Your task to perform on an android device: Open calendar and show me the third week of next month Image 0: 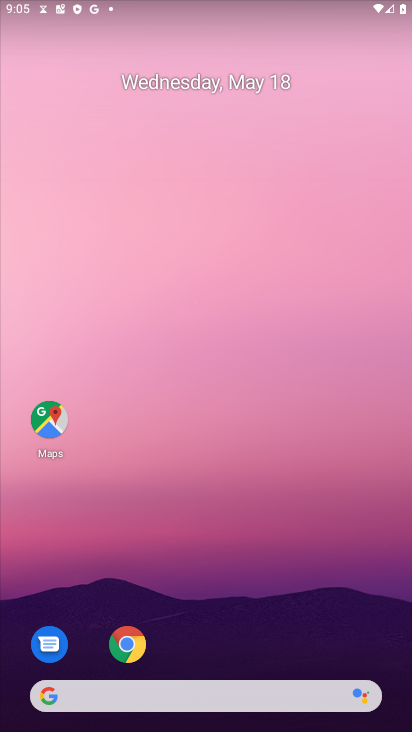
Step 0: drag from (251, 602) to (182, 165)
Your task to perform on an android device: Open calendar and show me the third week of next month Image 1: 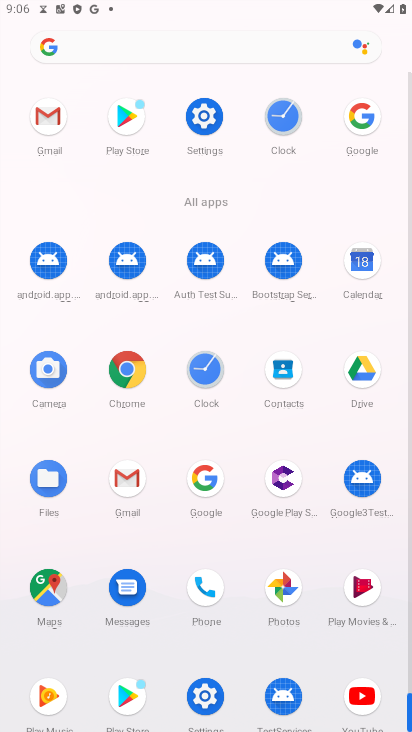
Step 1: click (362, 262)
Your task to perform on an android device: Open calendar and show me the third week of next month Image 2: 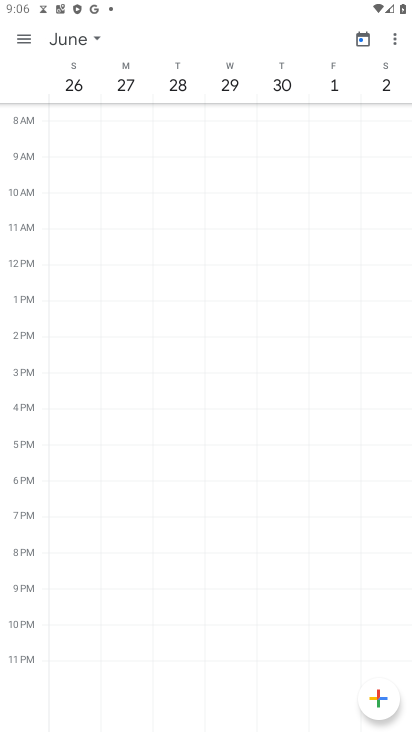
Step 2: click (365, 41)
Your task to perform on an android device: Open calendar and show me the third week of next month Image 3: 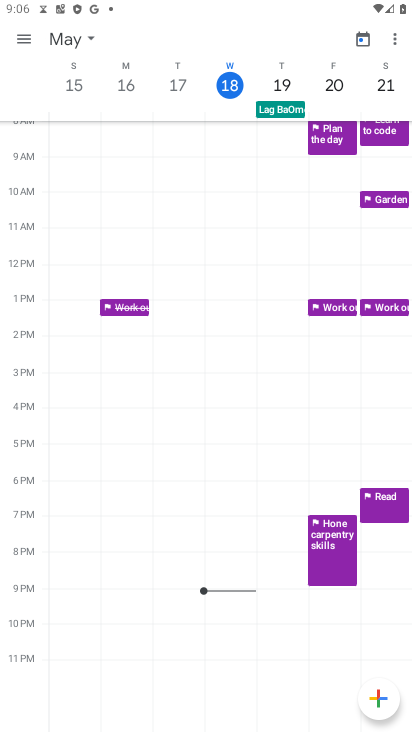
Step 3: click (85, 38)
Your task to perform on an android device: Open calendar and show me the third week of next month Image 4: 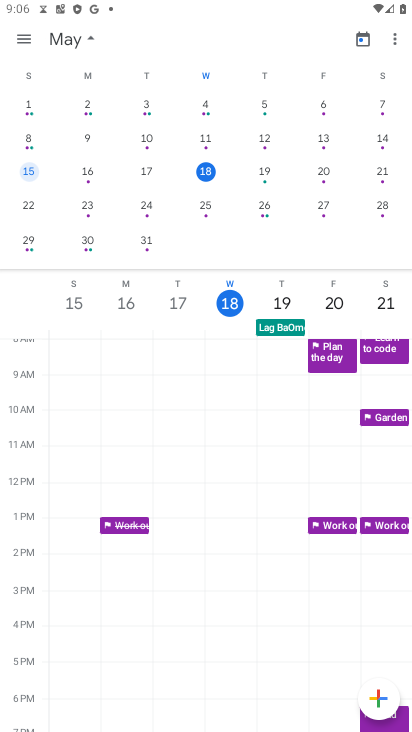
Step 4: drag from (354, 178) to (23, 176)
Your task to perform on an android device: Open calendar and show me the third week of next month Image 5: 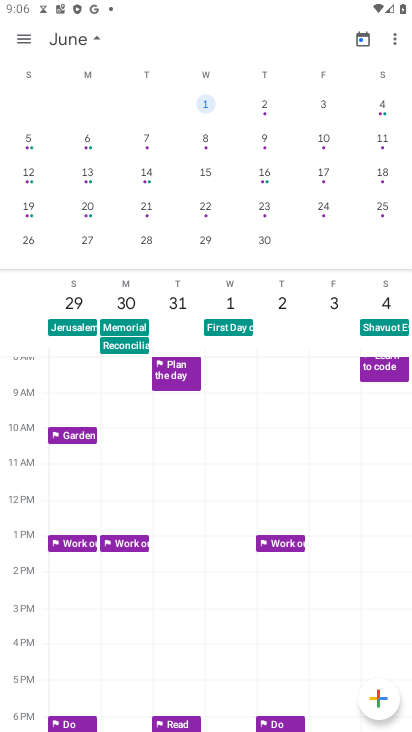
Step 5: click (87, 207)
Your task to perform on an android device: Open calendar and show me the third week of next month Image 6: 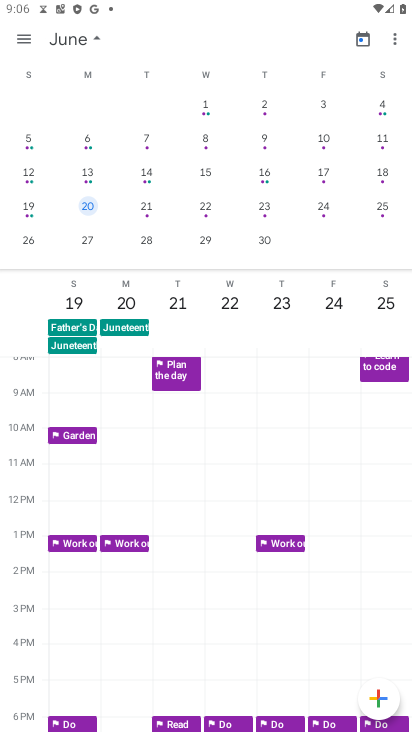
Step 6: click (29, 41)
Your task to perform on an android device: Open calendar and show me the third week of next month Image 7: 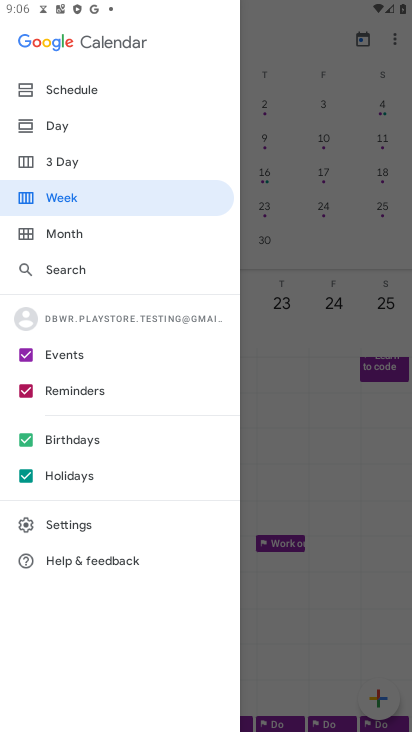
Step 7: click (68, 199)
Your task to perform on an android device: Open calendar and show me the third week of next month Image 8: 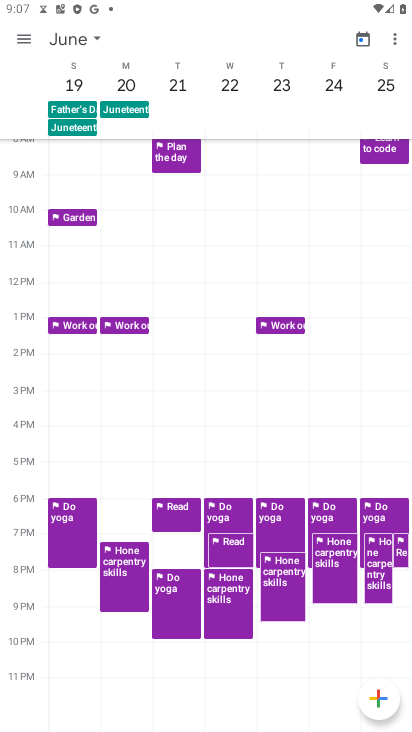
Step 8: task complete